Your task to perform on an android device: Open the calendar app, open the side menu, and click the "Day" option Image 0: 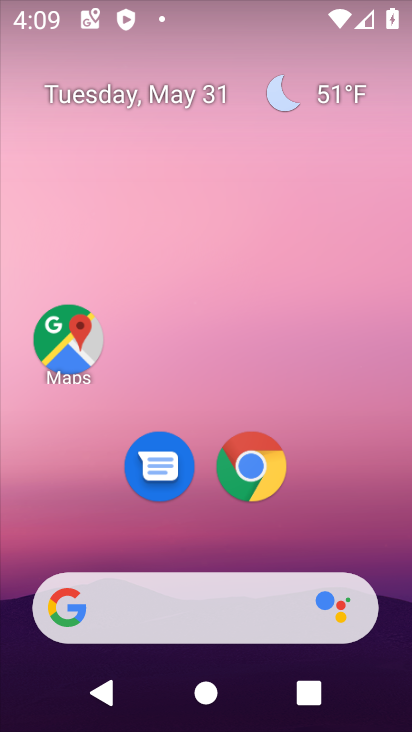
Step 0: press home button
Your task to perform on an android device: Open the calendar app, open the side menu, and click the "Day" option Image 1: 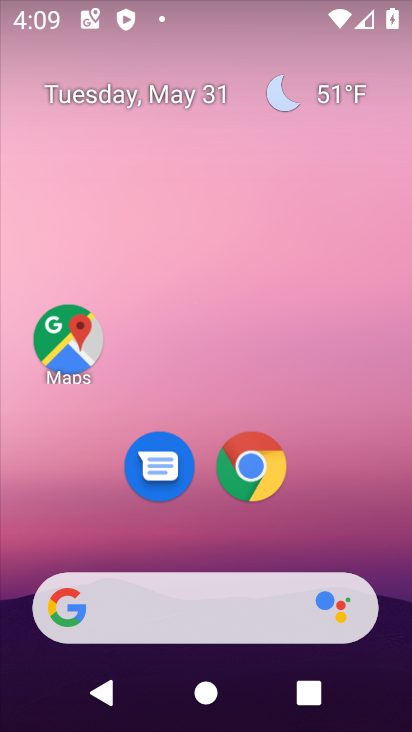
Step 1: drag from (207, 551) to (203, 60)
Your task to perform on an android device: Open the calendar app, open the side menu, and click the "Day" option Image 2: 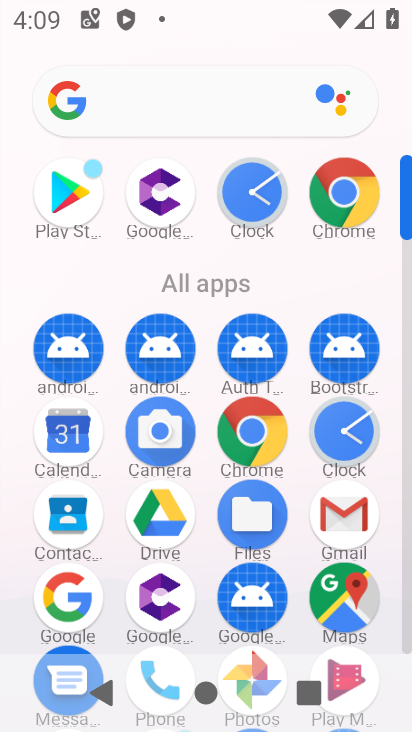
Step 2: click (69, 430)
Your task to perform on an android device: Open the calendar app, open the side menu, and click the "Day" option Image 3: 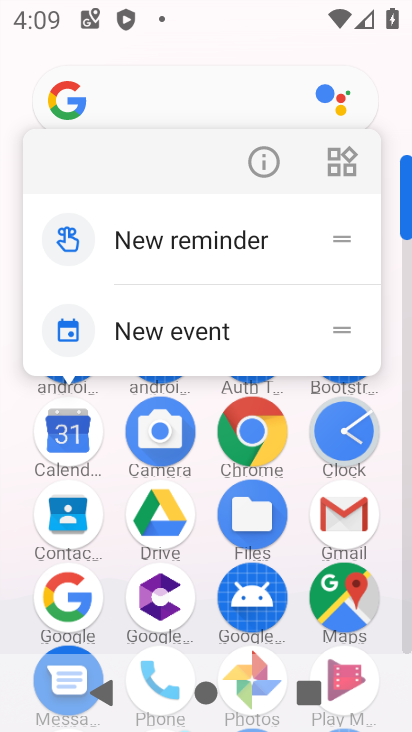
Step 3: click (69, 426)
Your task to perform on an android device: Open the calendar app, open the side menu, and click the "Day" option Image 4: 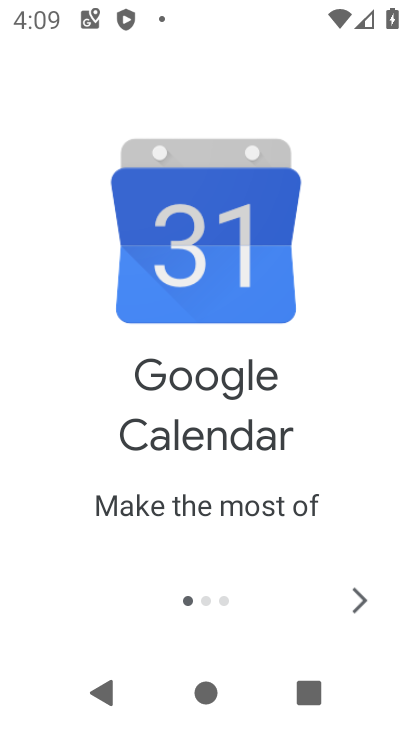
Step 4: click (348, 597)
Your task to perform on an android device: Open the calendar app, open the side menu, and click the "Day" option Image 5: 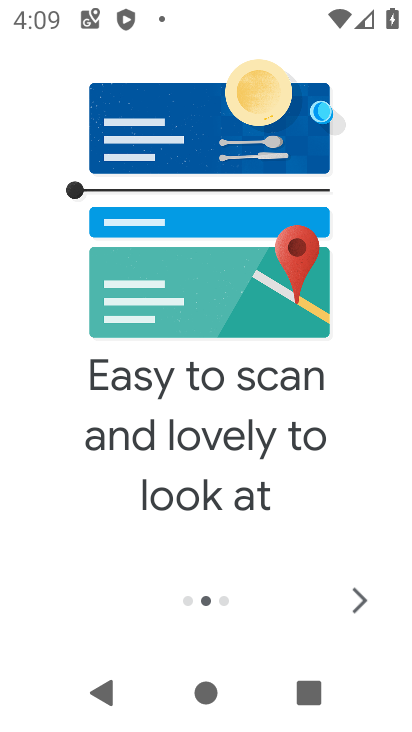
Step 5: click (353, 597)
Your task to perform on an android device: Open the calendar app, open the side menu, and click the "Day" option Image 6: 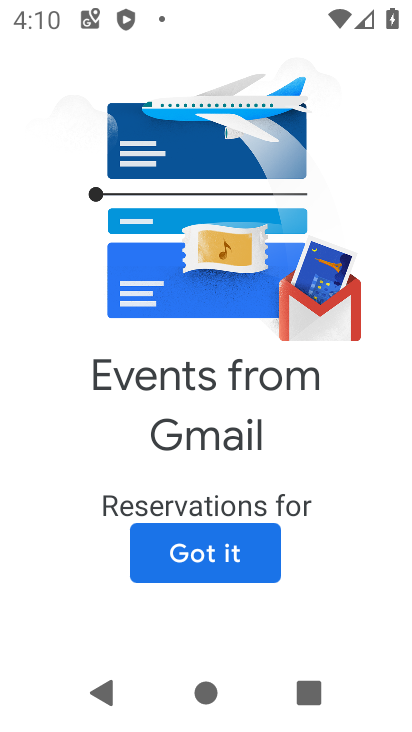
Step 6: click (219, 551)
Your task to perform on an android device: Open the calendar app, open the side menu, and click the "Day" option Image 7: 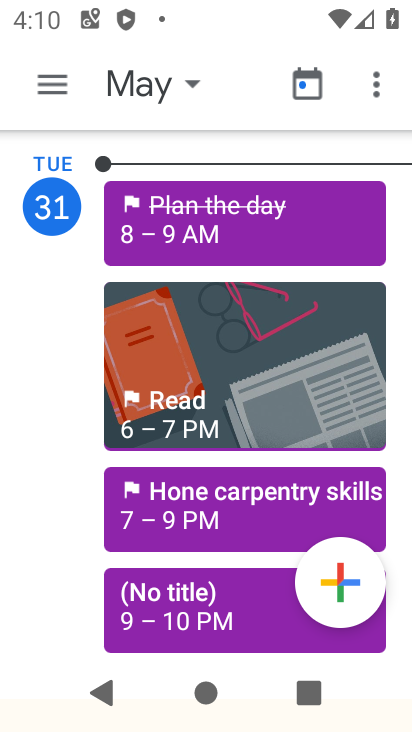
Step 7: click (57, 81)
Your task to perform on an android device: Open the calendar app, open the side menu, and click the "Day" option Image 8: 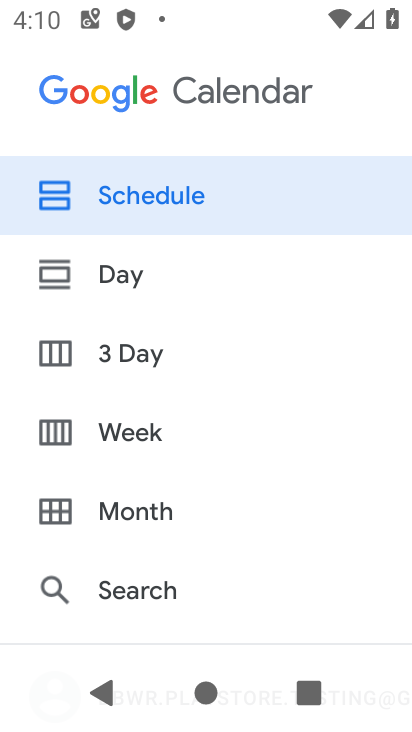
Step 8: click (81, 272)
Your task to perform on an android device: Open the calendar app, open the side menu, and click the "Day" option Image 9: 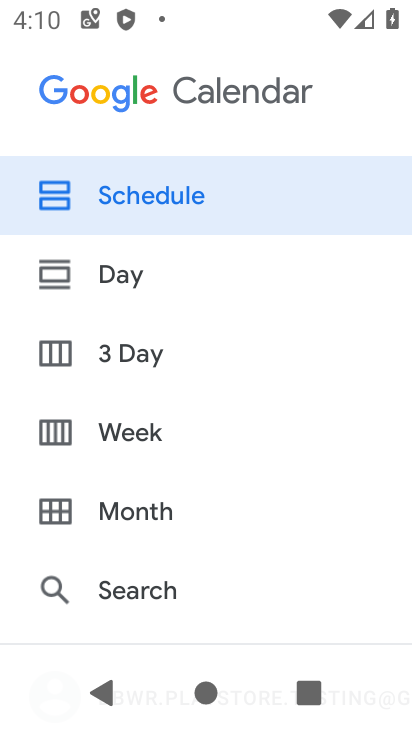
Step 9: click (80, 272)
Your task to perform on an android device: Open the calendar app, open the side menu, and click the "Day" option Image 10: 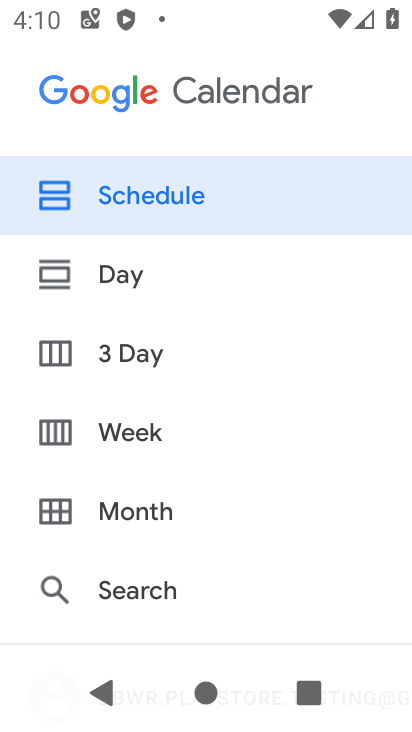
Step 10: click (145, 265)
Your task to perform on an android device: Open the calendar app, open the side menu, and click the "Day" option Image 11: 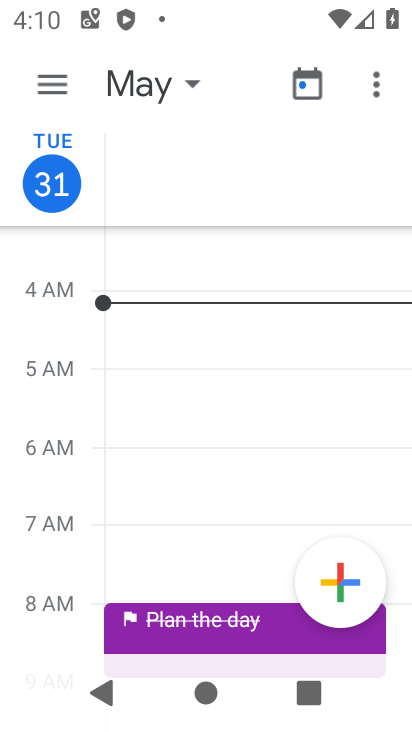
Step 11: task complete